Your task to perform on an android device: open wifi settings Image 0: 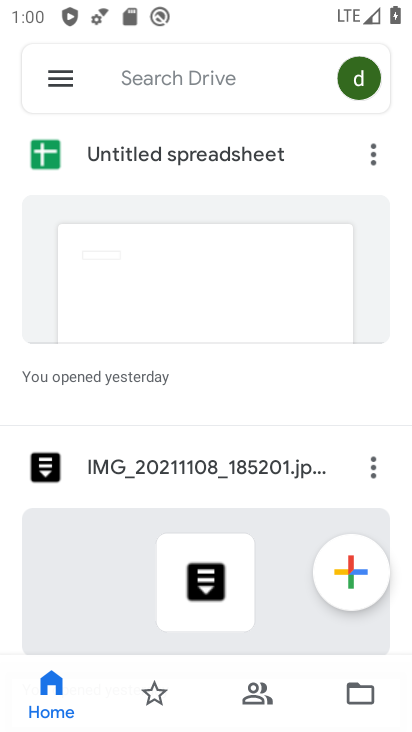
Step 0: drag from (248, 518) to (319, 147)
Your task to perform on an android device: open wifi settings Image 1: 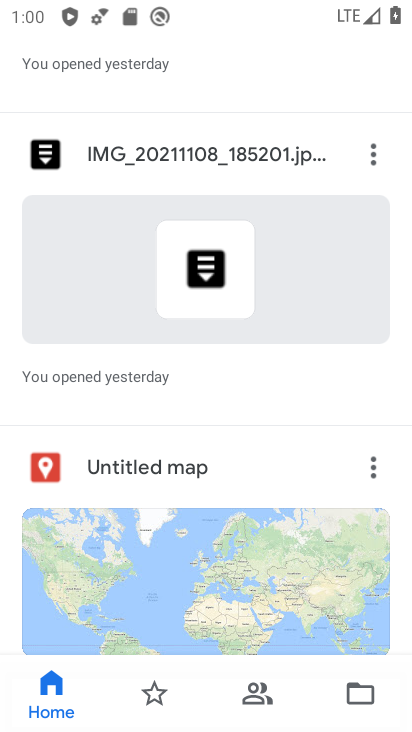
Step 1: press home button
Your task to perform on an android device: open wifi settings Image 2: 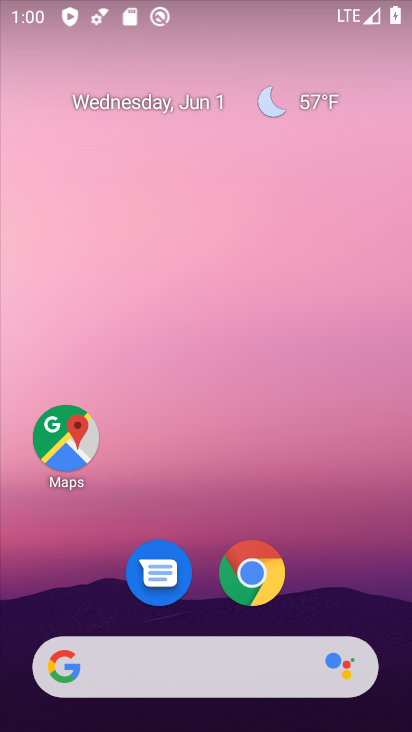
Step 2: drag from (219, 647) to (392, 388)
Your task to perform on an android device: open wifi settings Image 3: 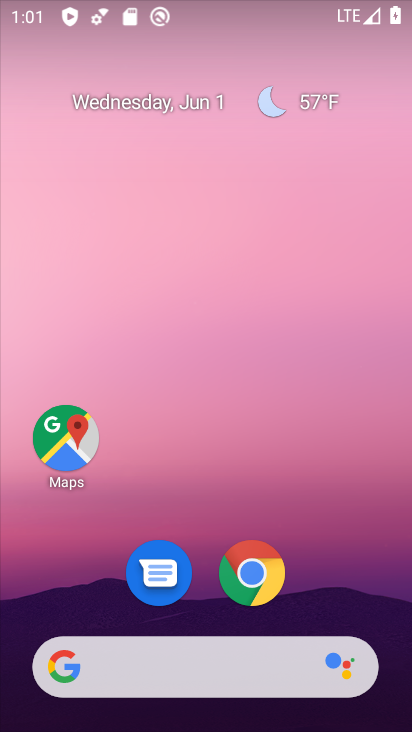
Step 3: drag from (247, 420) to (363, 16)
Your task to perform on an android device: open wifi settings Image 4: 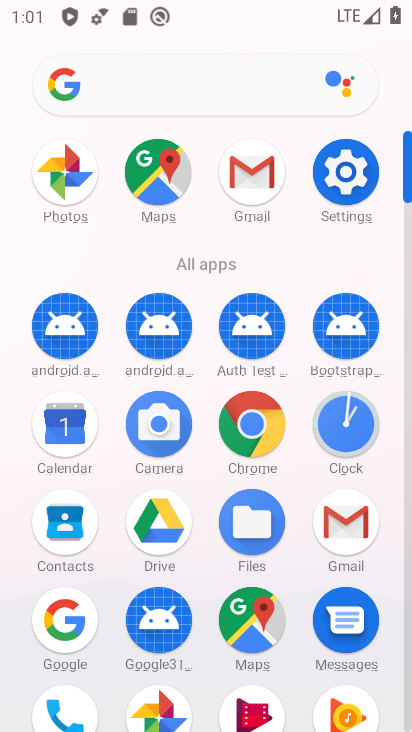
Step 4: click (364, 183)
Your task to perform on an android device: open wifi settings Image 5: 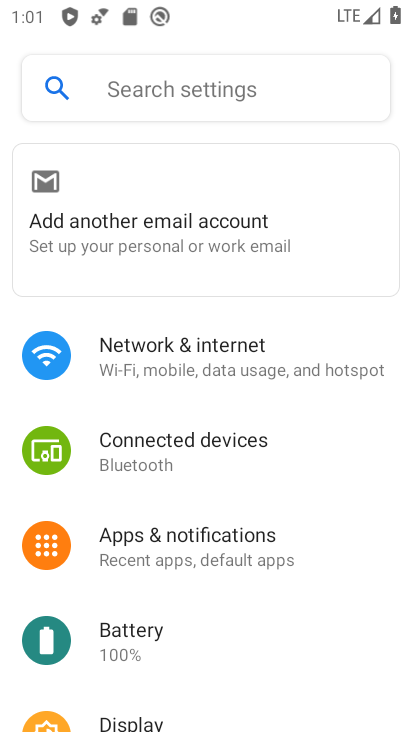
Step 5: click (178, 374)
Your task to perform on an android device: open wifi settings Image 6: 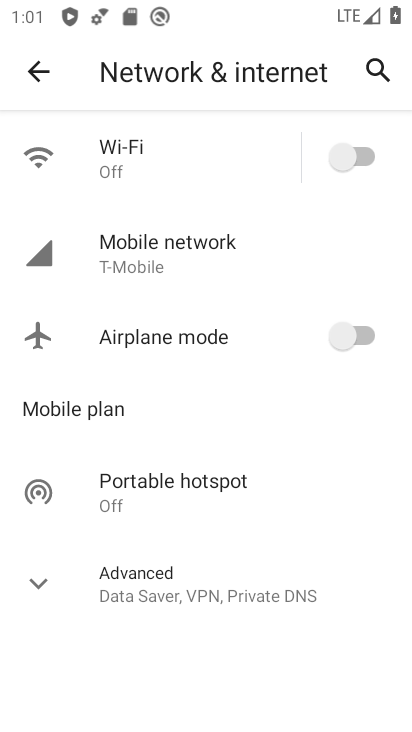
Step 6: click (166, 182)
Your task to perform on an android device: open wifi settings Image 7: 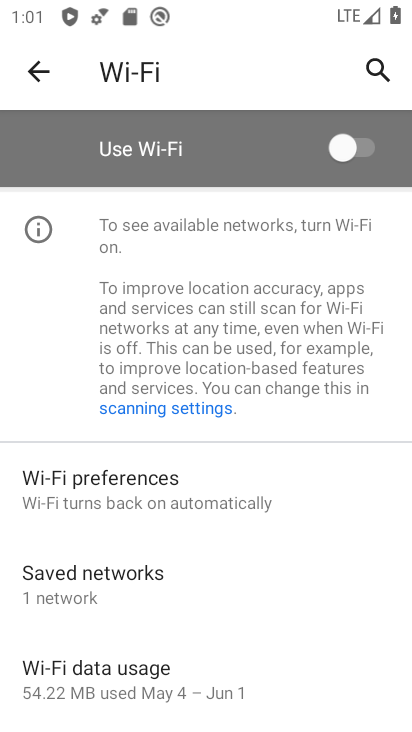
Step 7: task complete